Your task to perform on an android device: What's the weather today? Image 0: 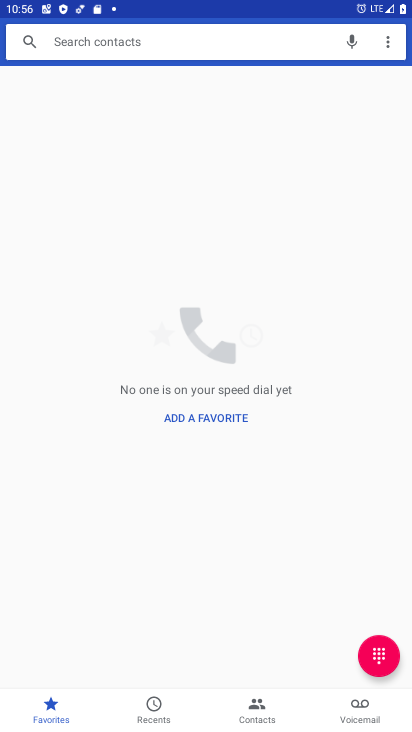
Step 0: press home button
Your task to perform on an android device: What's the weather today? Image 1: 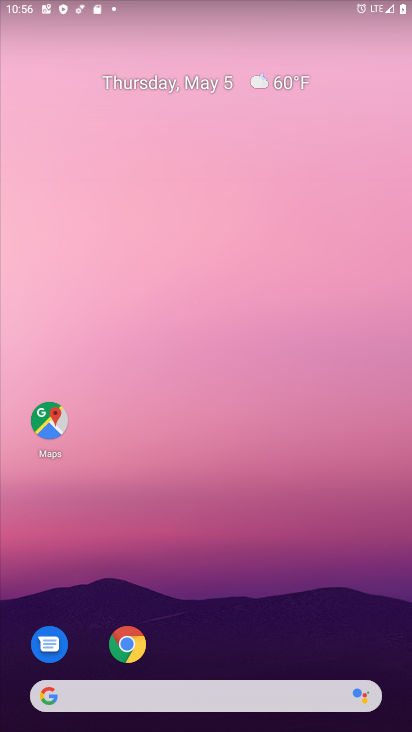
Step 1: click (132, 657)
Your task to perform on an android device: What's the weather today? Image 2: 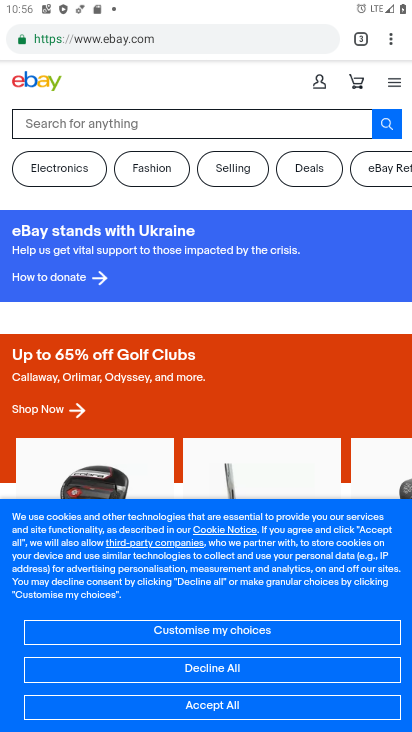
Step 2: click (193, 41)
Your task to perform on an android device: What's the weather today? Image 3: 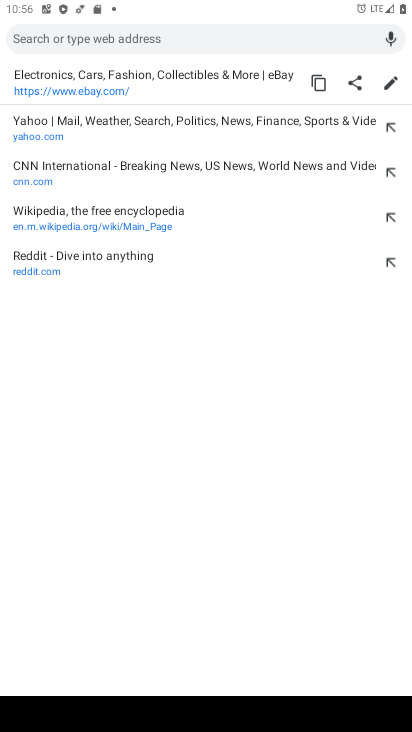
Step 3: type "whats the weather today"
Your task to perform on an android device: What's the weather today? Image 4: 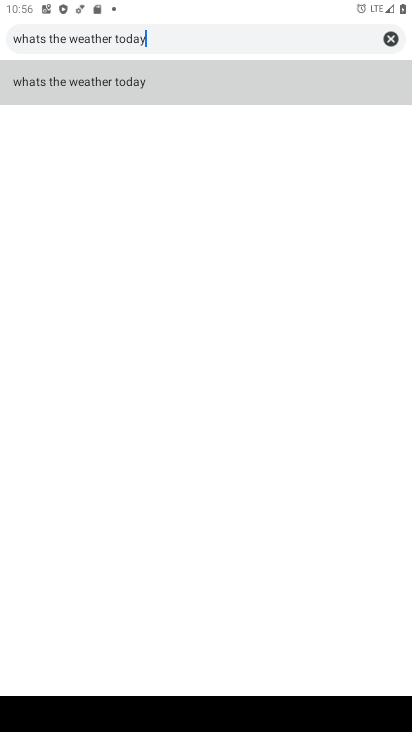
Step 4: click (113, 91)
Your task to perform on an android device: What's the weather today? Image 5: 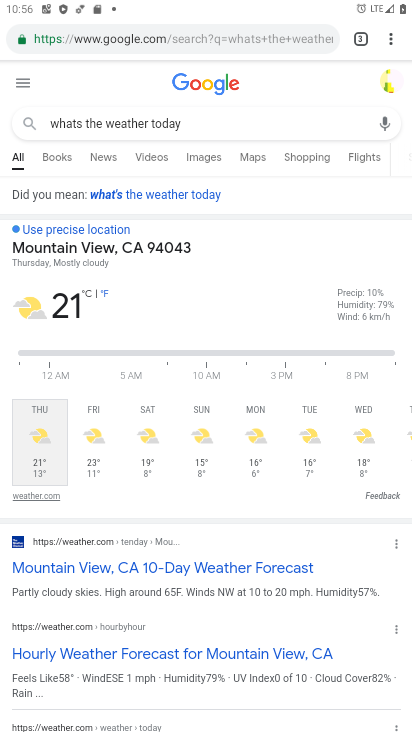
Step 5: task complete